Your task to perform on an android device: Search for seafood restaurants on Google Maps Image 0: 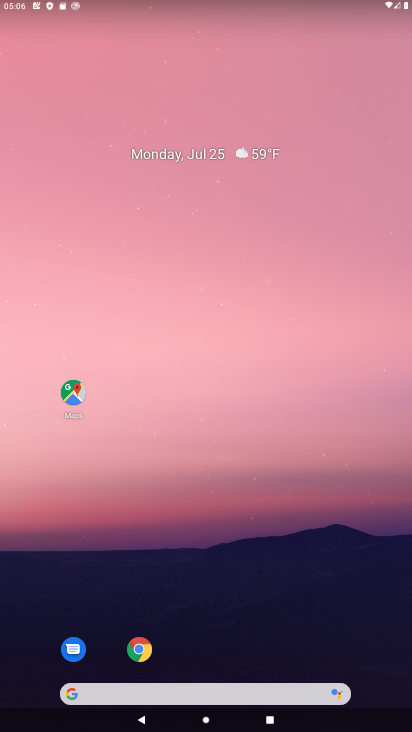
Step 0: drag from (285, 540) to (280, 67)
Your task to perform on an android device: Search for seafood restaurants on Google Maps Image 1: 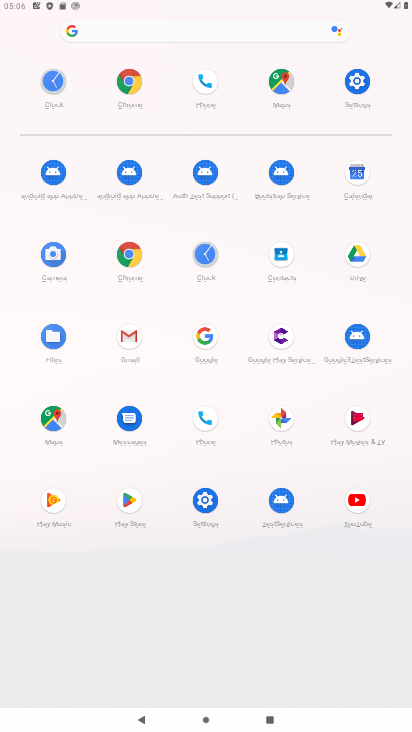
Step 1: click (31, 419)
Your task to perform on an android device: Search for seafood restaurants on Google Maps Image 2: 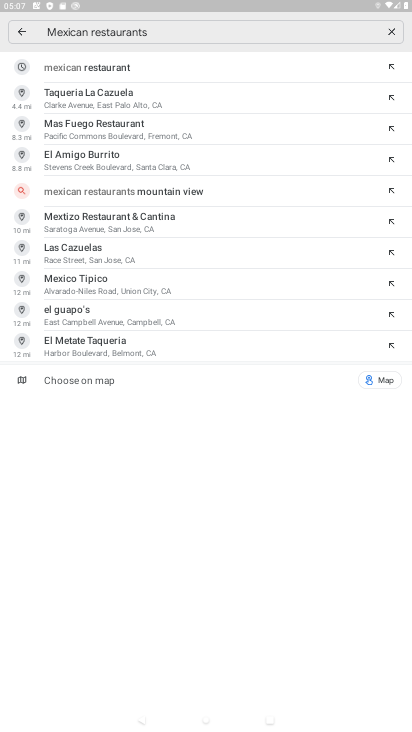
Step 2: click (20, 25)
Your task to perform on an android device: Search for seafood restaurants on Google Maps Image 3: 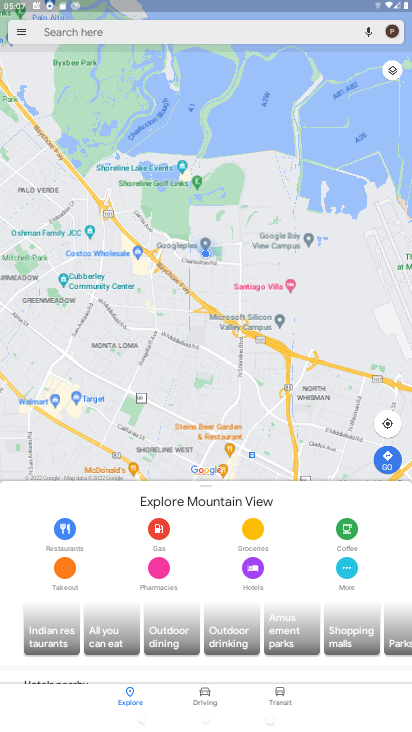
Step 3: click (158, 27)
Your task to perform on an android device: Search for seafood restaurants on Google Maps Image 4: 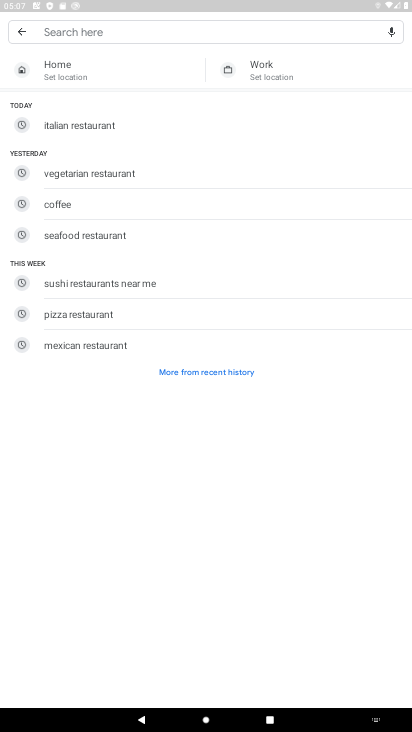
Step 4: click (81, 235)
Your task to perform on an android device: Search for seafood restaurants on Google Maps Image 5: 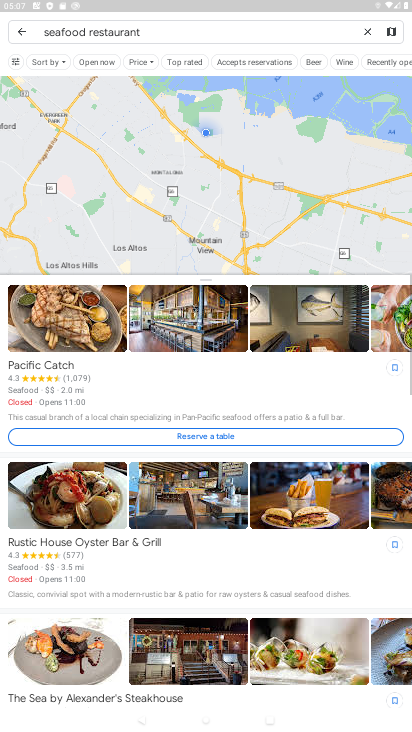
Step 5: task complete